Your task to perform on an android device: turn on translation in the chrome app Image 0: 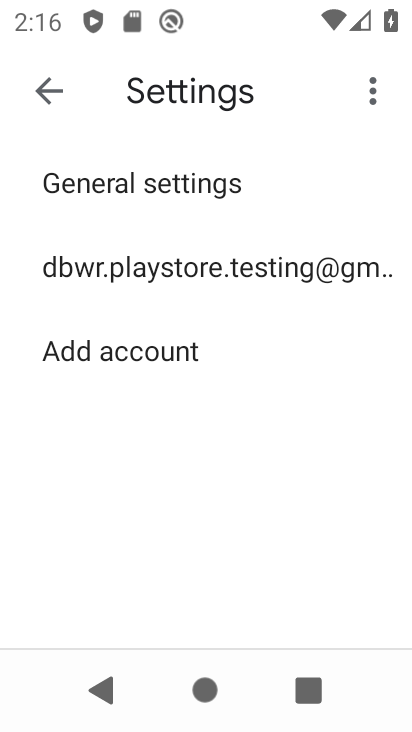
Step 0: press home button
Your task to perform on an android device: turn on translation in the chrome app Image 1: 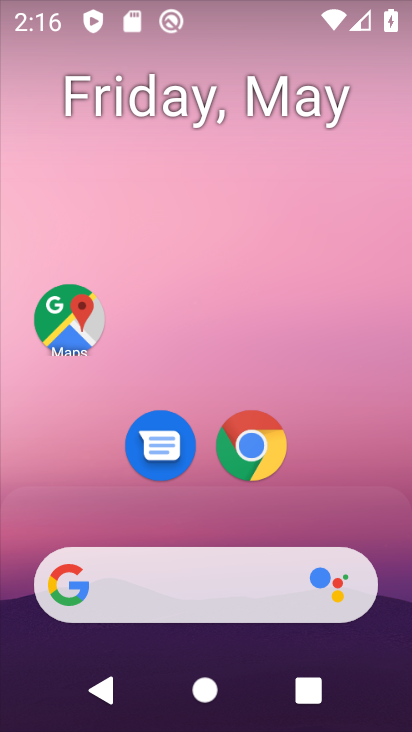
Step 1: click (257, 449)
Your task to perform on an android device: turn on translation in the chrome app Image 2: 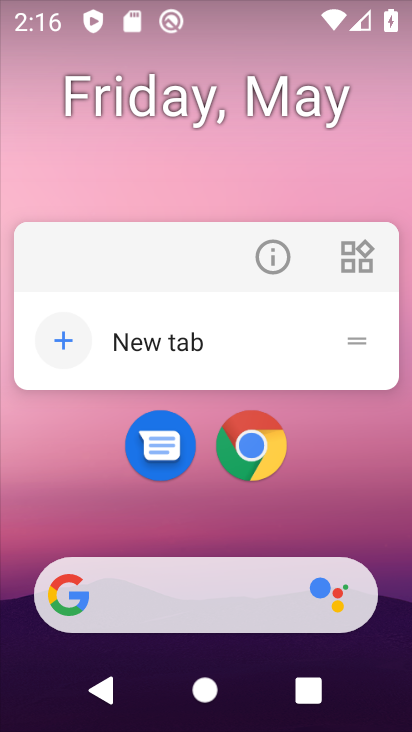
Step 2: click (257, 452)
Your task to perform on an android device: turn on translation in the chrome app Image 3: 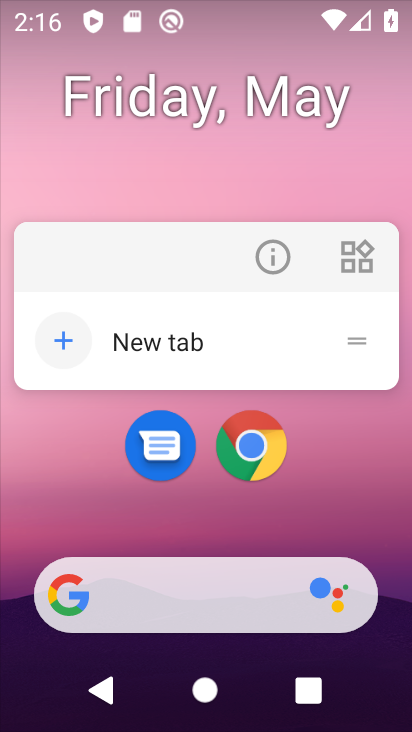
Step 3: click (257, 452)
Your task to perform on an android device: turn on translation in the chrome app Image 4: 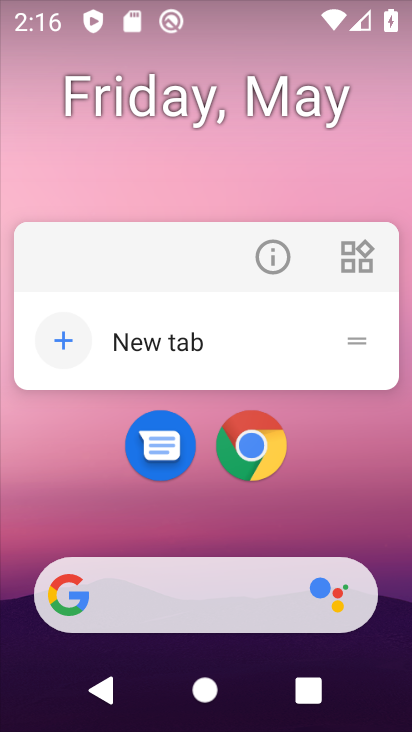
Step 4: click (257, 452)
Your task to perform on an android device: turn on translation in the chrome app Image 5: 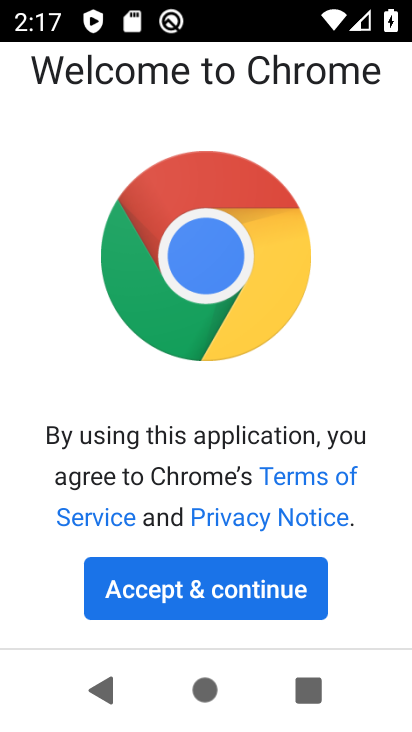
Step 5: click (252, 578)
Your task to perform on an android device: turn on translation in the chrome app Image 6: 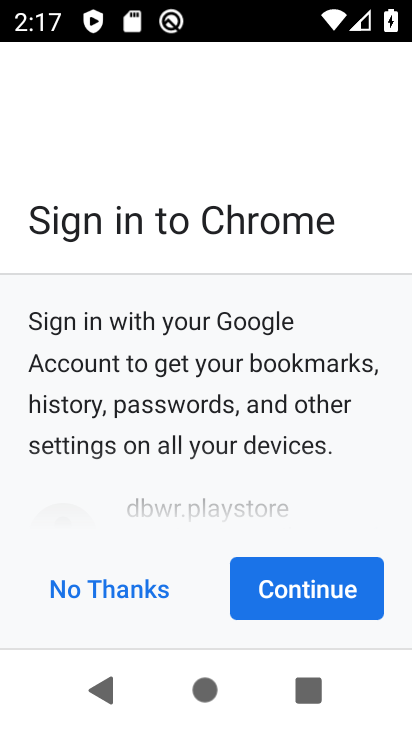
Step 6: click (325, 581)
Your task to perform on an android device: turn on translation in the chrome app Image 7: 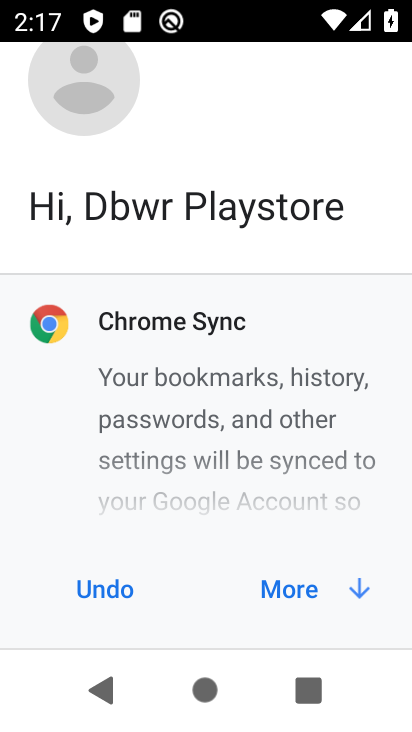
Step 7: click (325, 580)
Your task to perform on an android device: turn on translation in the chrome app Image 8: 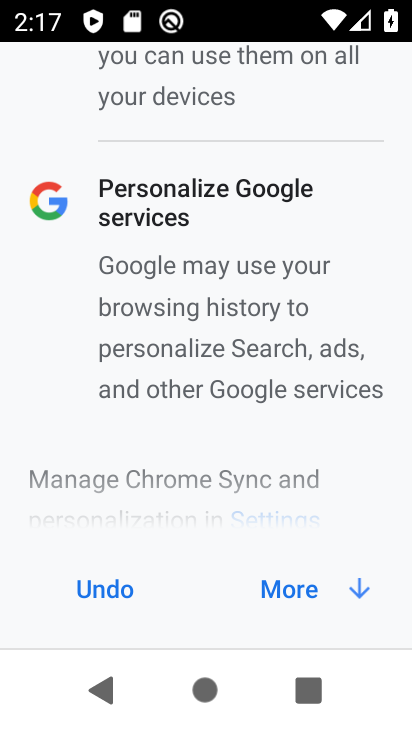
Step 8: click (325, 580)
Your task to perform on an android device: turn on translation in the chrome app Image 9: 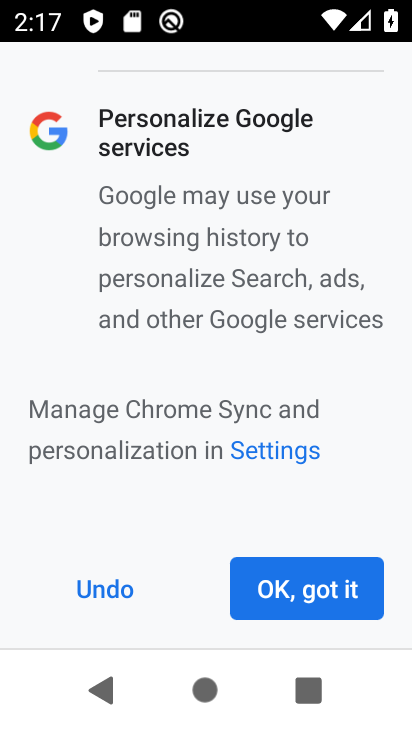
Step 9: click (344, 578)
Your task to perform on an android device: turn on translation in the chrome app Image 10: 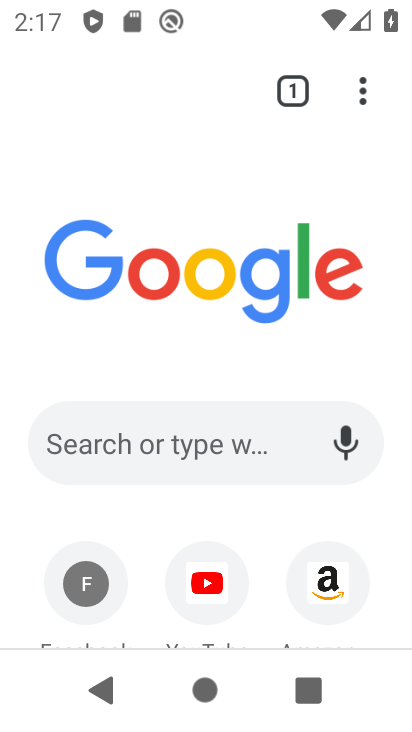
Step 10: drag from (363, 91) to (296, 498)
Your task to perform on an android device: turn on translation in the chrome app Image 11: 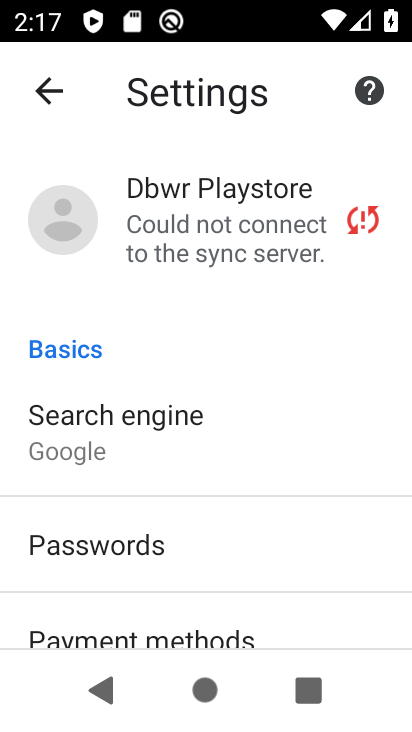
Step 11: drag from (222, 594) to (336, 224)
Your task to perform on an android device: turn on translation in the chrome app Image 12: 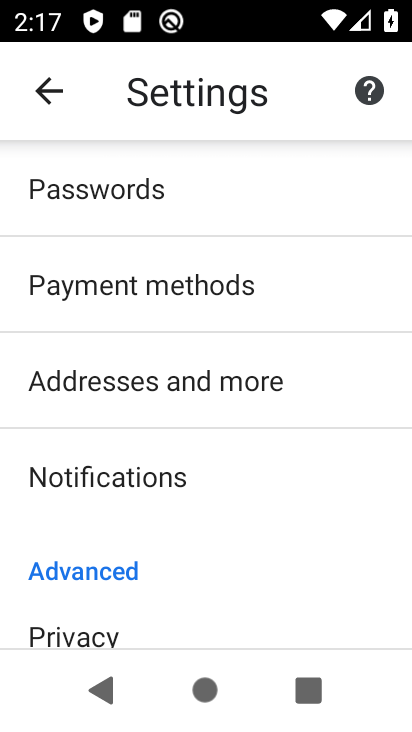
Step 12: drag from (222, 579) to (316, 269)
Your task to perform on an android device: turn on translation in the chrome app Image 13: 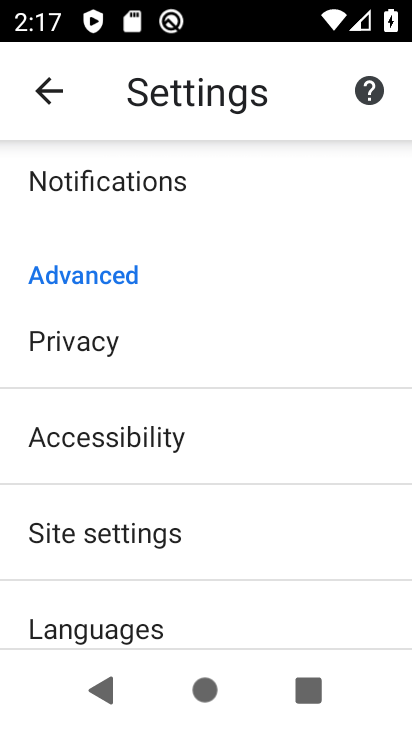
Step 13: drag from (193, 559) to (243, 306)
Your task to perform on an android device: turn on translation in the chrome app Image 14: 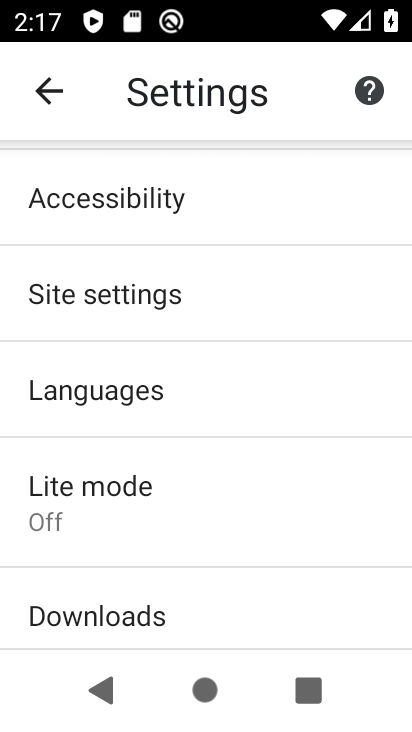
Step 14: drag from (187, 576) to (243, 376)
Your task to perform on an android device: turn on translation in the chrome app Image 15: 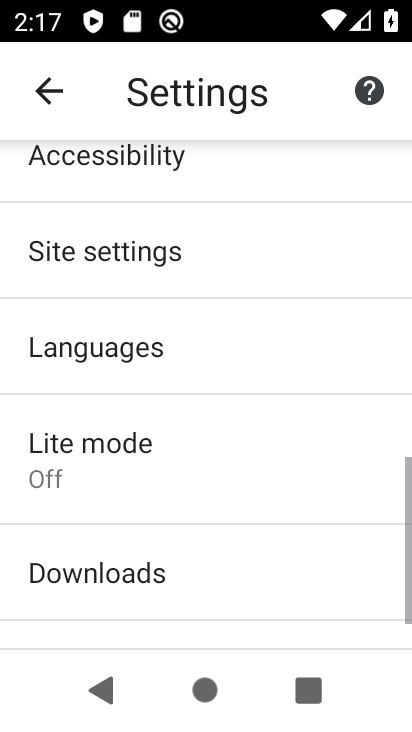
Step 15: click (224, 353)
Your task to perform on an android device: turn on translation in the chrome app Image 16: 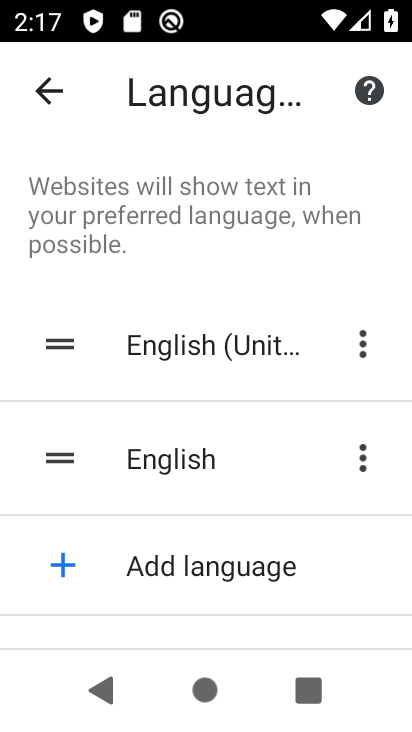
Step 16: task complete